Your task to perform on an android device: set the stopwatch Image 0: 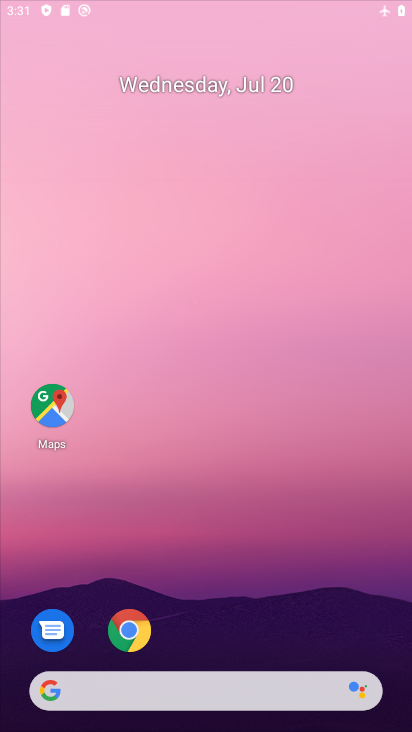
Step 0: press home button
Your task to perform on an android device: set the stopwatch Image 1: 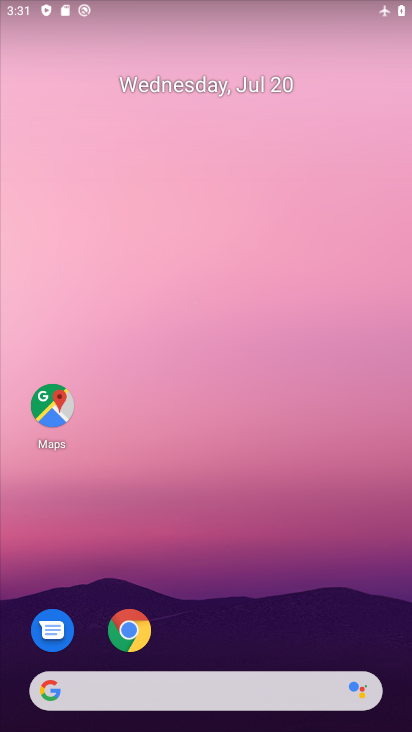
Step 1: drag from (206, 624) to (400, 252)
Your task to perform on an android device: set the stopwatch Image 2: 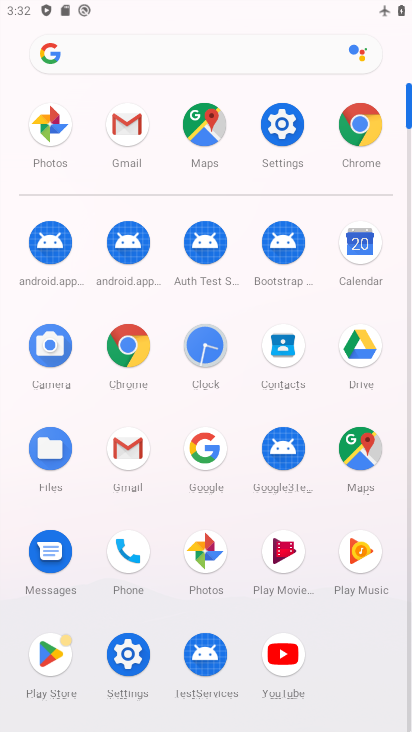
Step 2: click (211, 337)
Your task to perform on an android device: set the stopwatch Image 3: 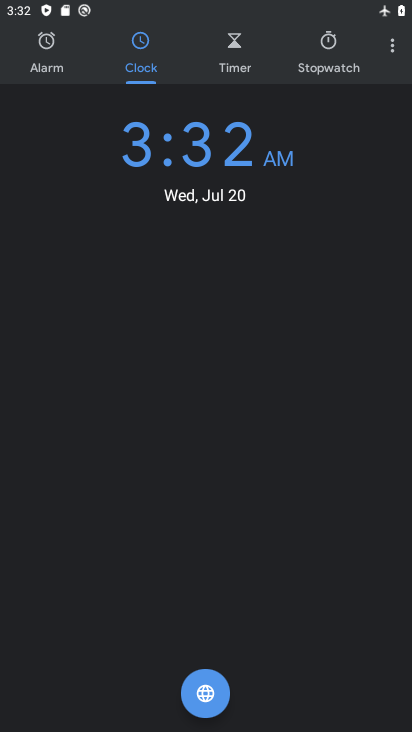
Step 3: click (336, 58)
Your task to perform on an android device: set the stopwatch Image 4: 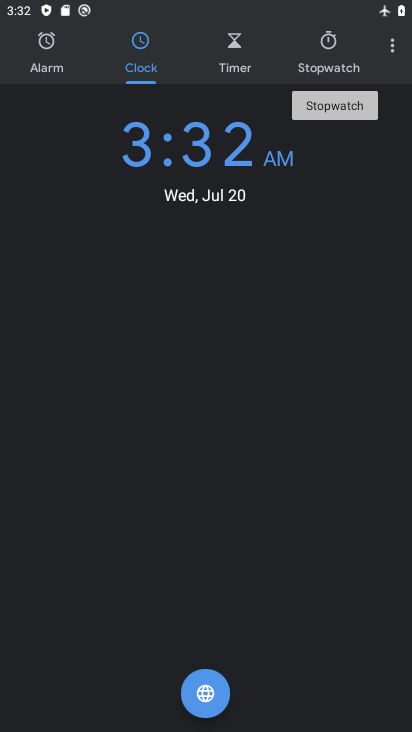
Step 4: click (337, 57)
Your task to perform on an android device: set the stopwatch Image 5: 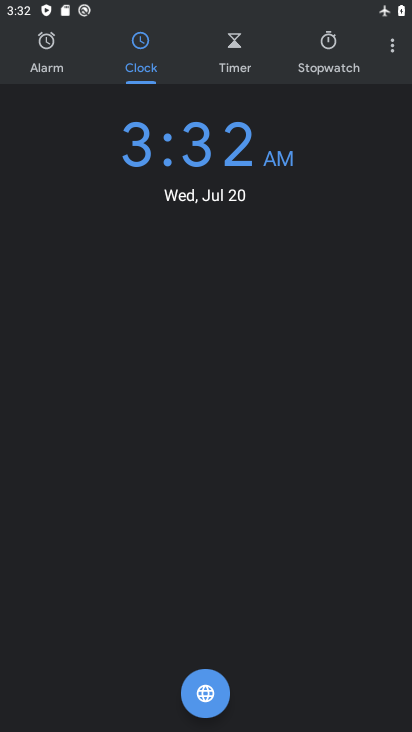
Step 5: click (324, 41)
Your task to perform on an android device: set the stopwatch Image 6: 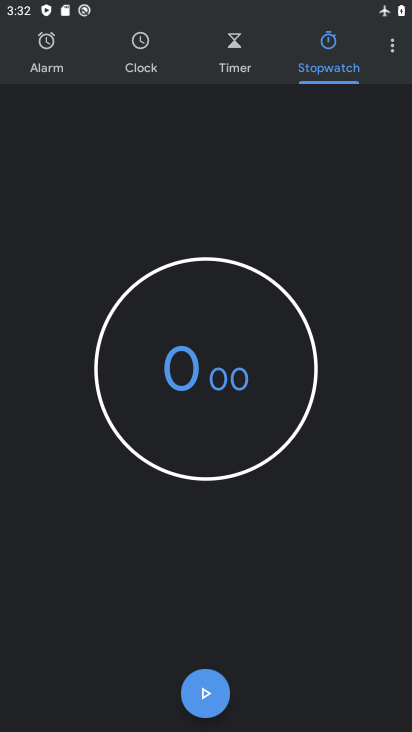
Step 6: click (203, 698)
Your task to perform on an android device: set the stopwatch Image 7: 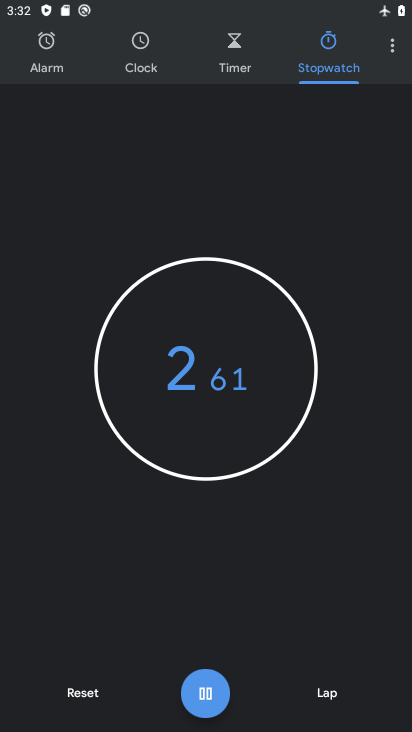
Step 7: task complete